Your task to perform on an android device: delete browsing data in the chrome app Image 0: 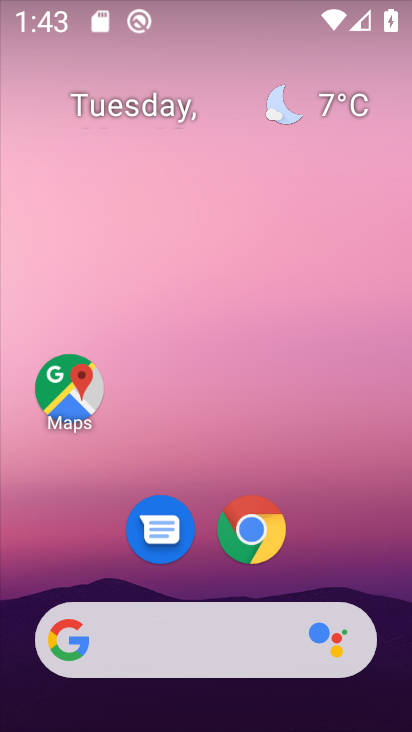
Step 0: click (247, 530)
Your task to perform on an android device: delete browsing data in the chrome app Image 1: 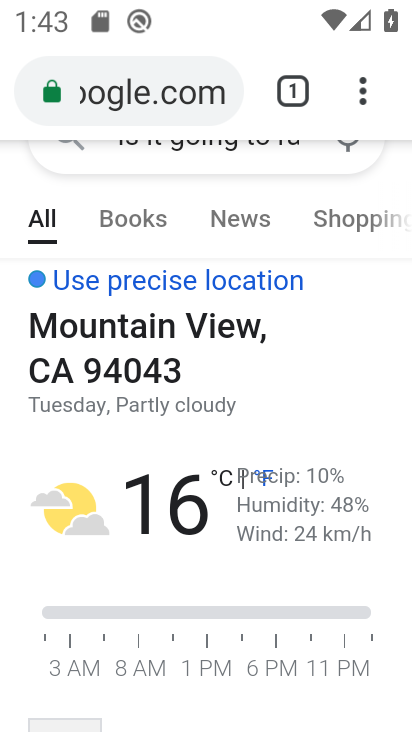
Step 1: click (363, 91)
Your task to perform on an android device: delete browsing data in the chrome app Image 2: 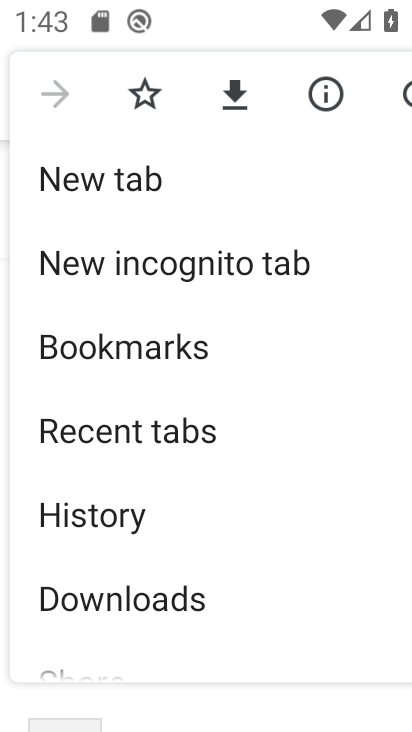
Step 2: drag from (223, 461) to (254, 329)
Your task to perform on an android device: delete browsing data in the chrome app Image 3: 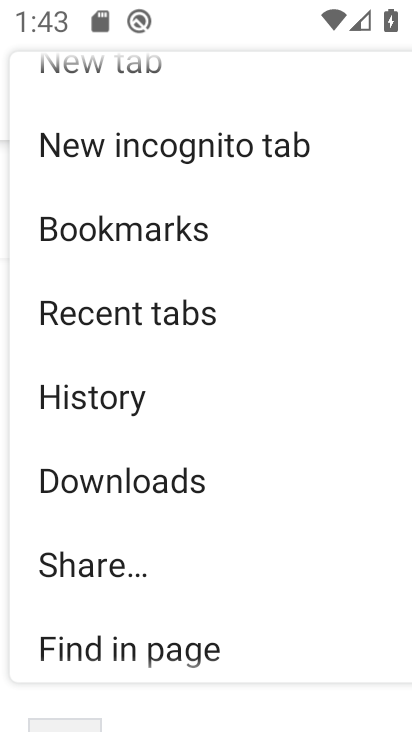
Step 3: drag from (152, 511) to (179, 396)
Your task to perform on an android device: delete browsing data in the chrome app Image 4: 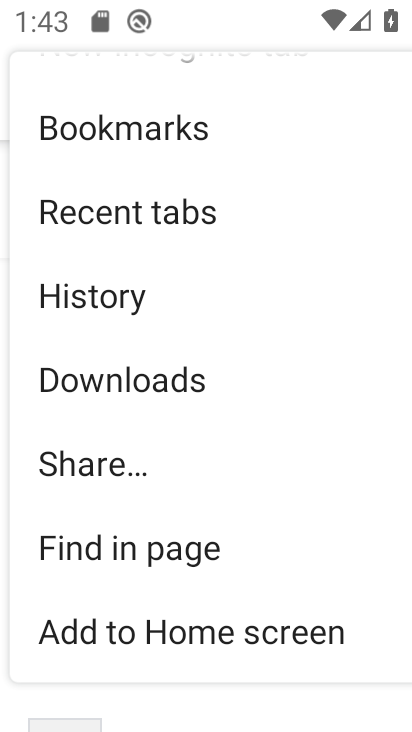
Step 4: drag from (149, 508) to (219, 394)
Your task to perform on an android device: delete browsing data in the chrome app Image 5: 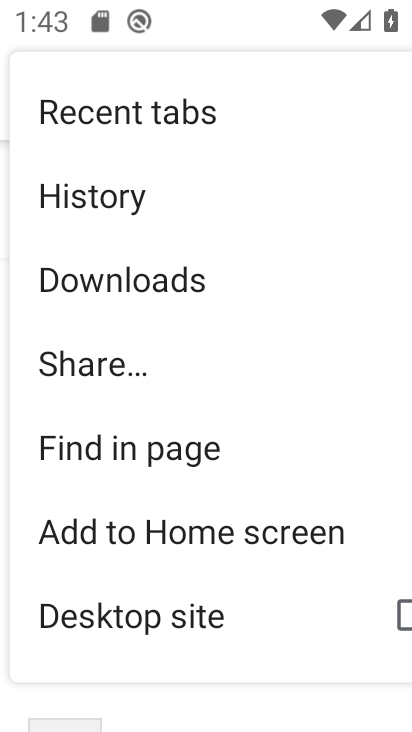
Step 5: drag from (165, 502) to (249, 359)
Your task to perform on an android device: delete browsing data in the chrome app Image 6: 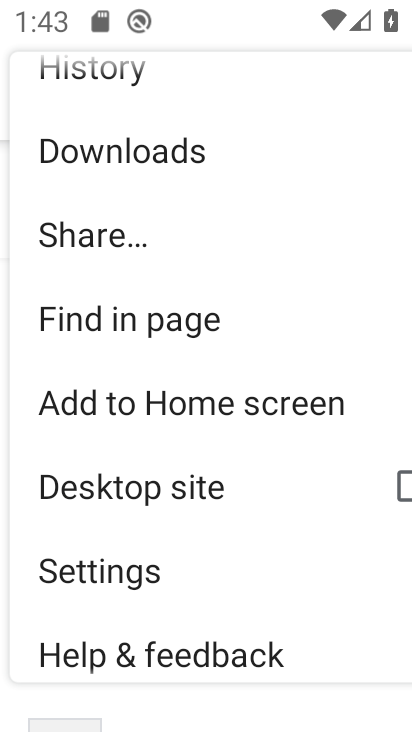
Step 6: drag from (141, 507) to (249, 334)
Your task to perform on an android device: delete browsing data in the chrome app Image 7: 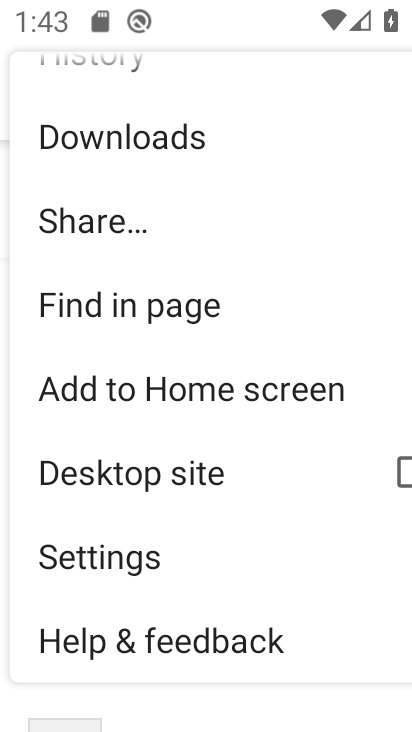
Step 7: click (113, 557)
Your task to perform on an android device: delete browsing data in the chrome app Image 8: 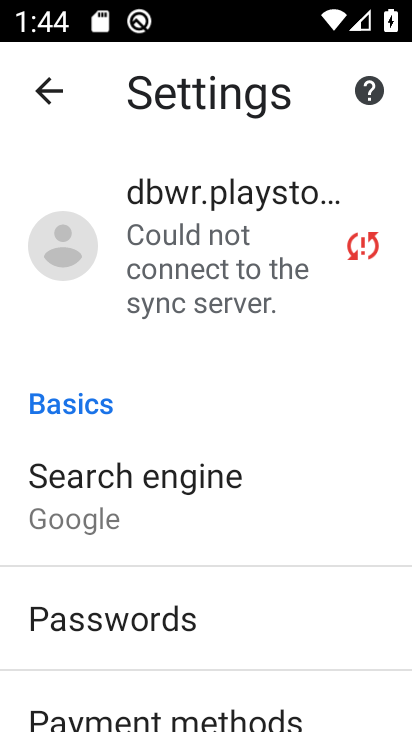
Step 8: drag from (116, 573) to (186, 384)
Your task to perform on an android device: delete browsing data in the chrome app Image 9: 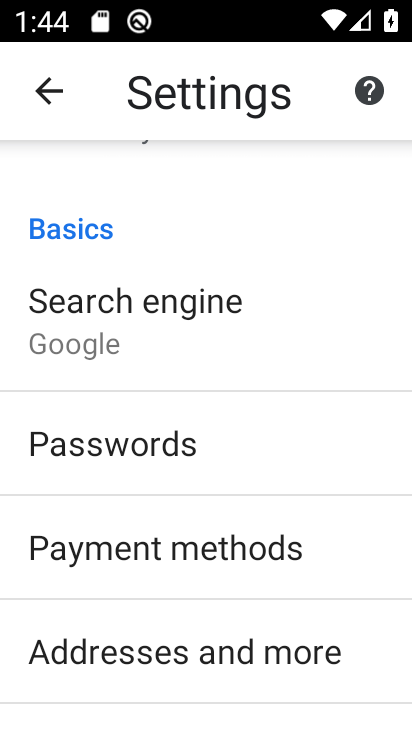
Step 9: drag from (122, 570) to (195, 409)
Your task to perform on an android device: delete browsing data in the chrome app Image 10: 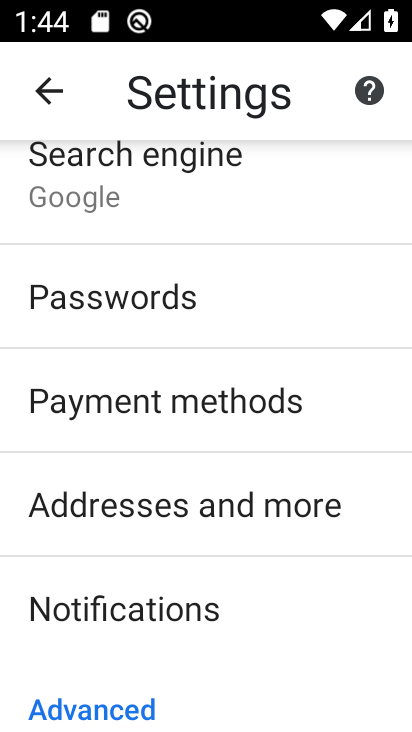
Step 10: drag from (136, 548) to (242, 413)
Your task to perform on an android device: delete browsing data in the chrome app Image 11: 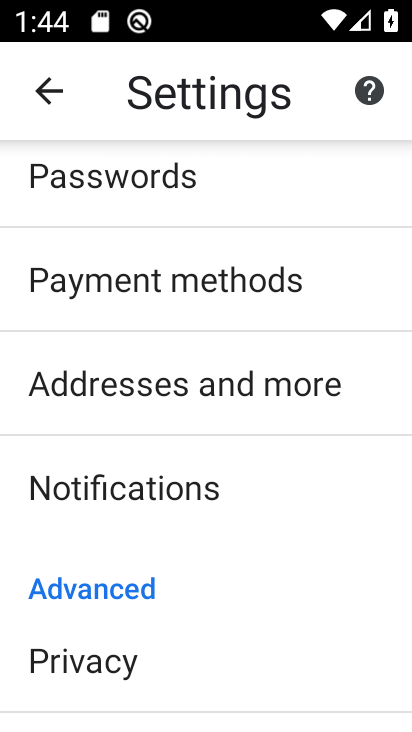
Step 11: drag from (160, 544) to (229, 403)
Your task to perform on an android device: delete browsing data in the chrome app Image 12: 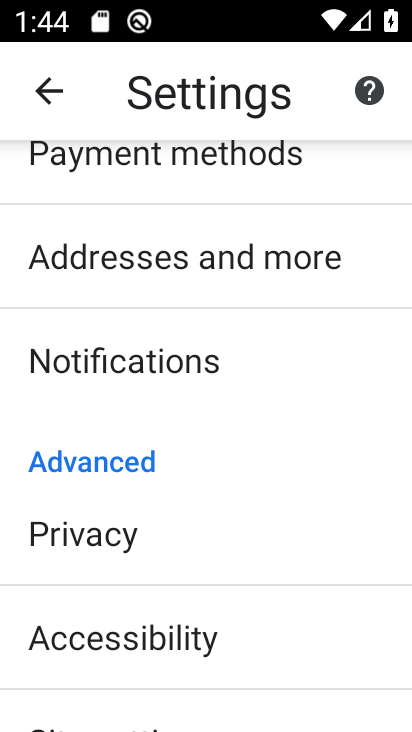
Step 12: click (118, 541)
Your task to perform on an android device: delete browsing data in the chrome app Image 13: 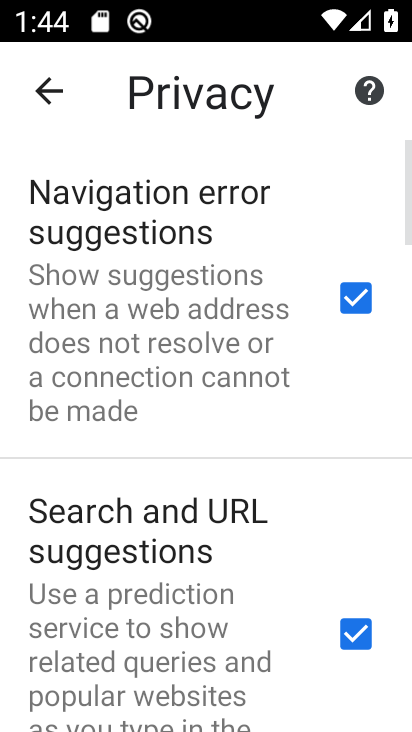
Step 13: drag from (137, 528) to (208, 317)
Your task to perform on an android device: delete browsing data in the chrome app Image 14: 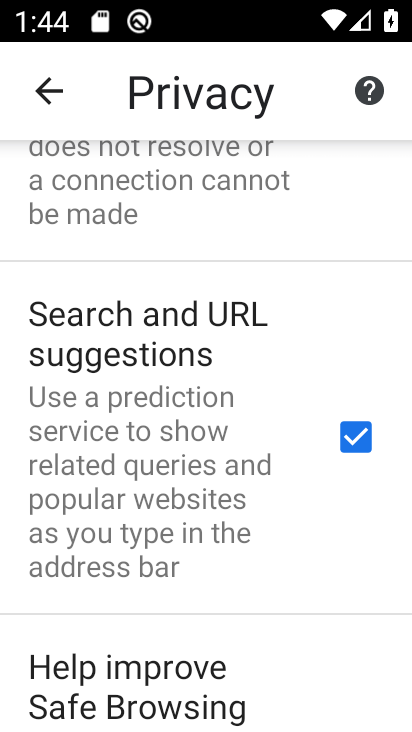
Step 14: drag from (146, 517) to (210, 320)
Your task to perform on an android device: delete browsing data in the chrome app Image 15: 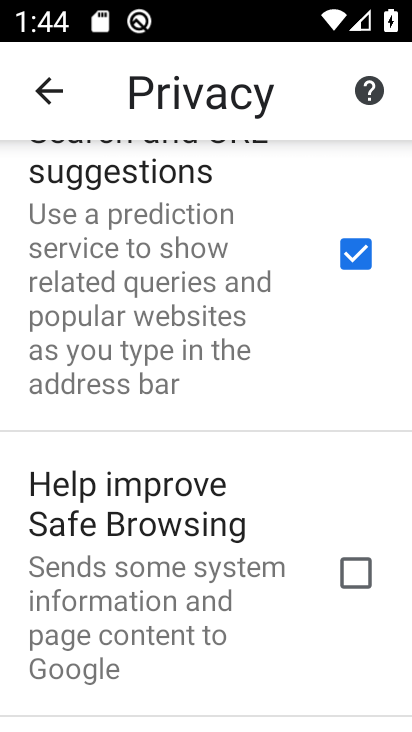
Step 15: drag from (129, 530) to (190, 388)
Your task to perform on an android device: delete browsing data in the chrome app Image 16: 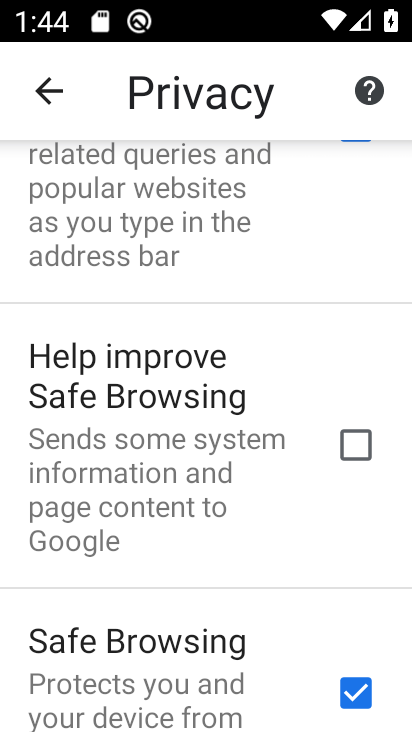
Step 16: drag from (126, 593) to (186, 386)
Your task to perform on an android device: delete browsing data in the chrome app Image 17: 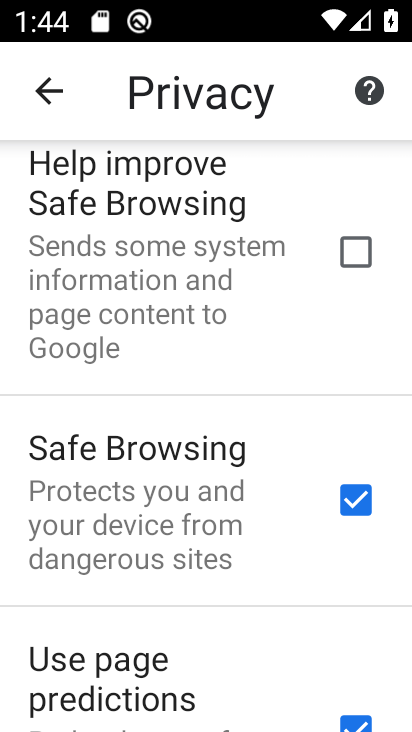
Step 17: drag from (118, 628) to (176, 398)
Your task to perform on an android device: delete browsing data in the chrome app Image 18: 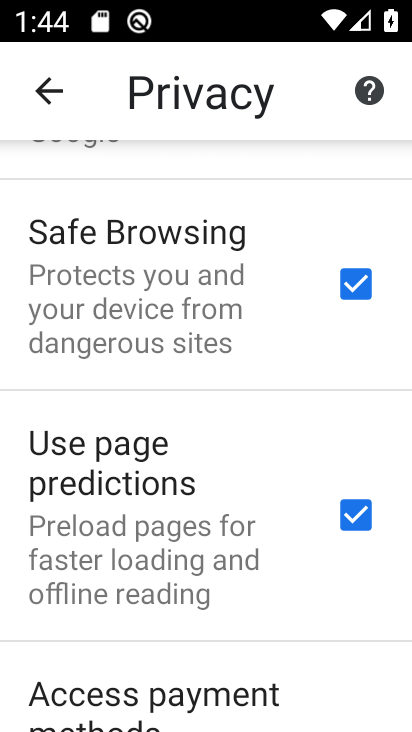
Step 18: drag from (112, 586) to (193, 411)
Your task to perform on an android device: delete browsing data in the chrome app Image 19: 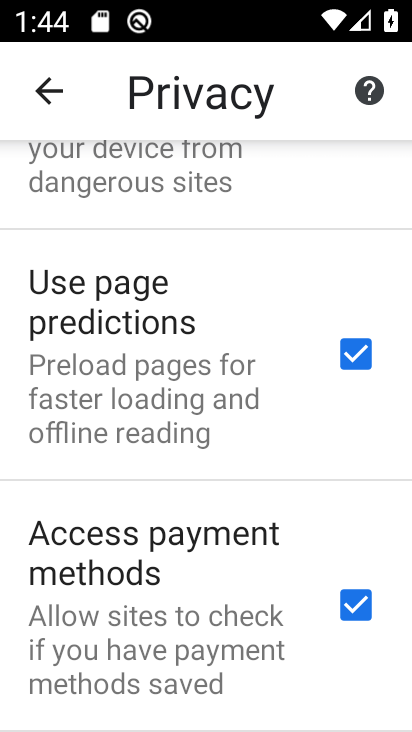
Step 19: drag from (131, 602) to (211, 412)
Your task to perform on an android device: delete browsing data in the chrome app Image 20: 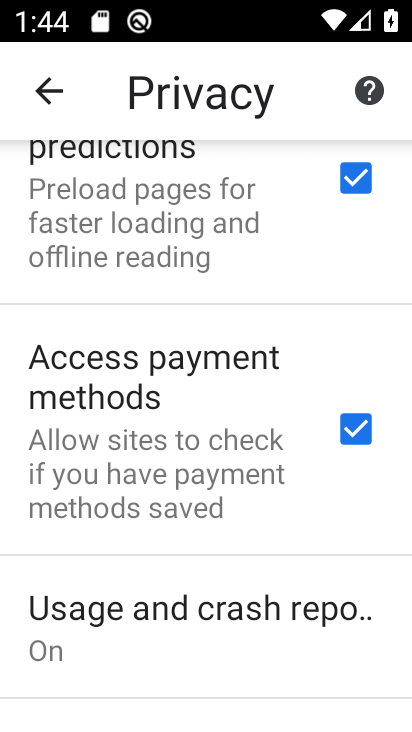
Step 20: drag from (149, 603) to (203, 443)
Your task to perform on an android device: delete browsing data in the chrome app Image 21: 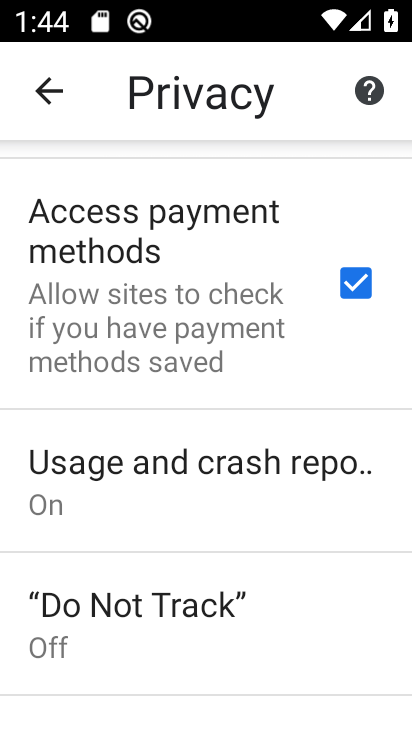
Step 21: drag from (131, 662) to (240, 404)
Your task to perform on an android device: delete browsing data in the chrome app Image 22: 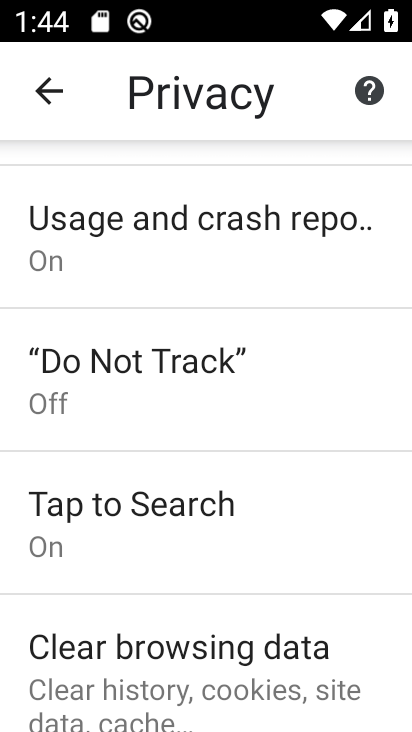
Step 22: drag from (171, 573) to (281, 381)
Your task to perform on an android device: delete browsing data in the chrome app Image 23: 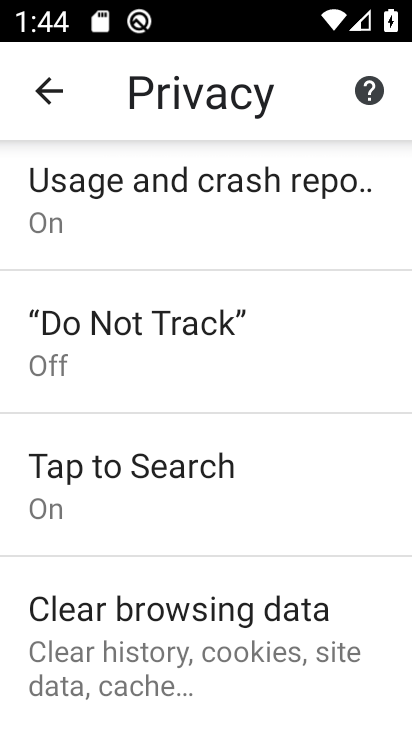
Step 23: click (151, 613)
Your task to perform on an android device: delete browsing data in the chrome app Image 24: 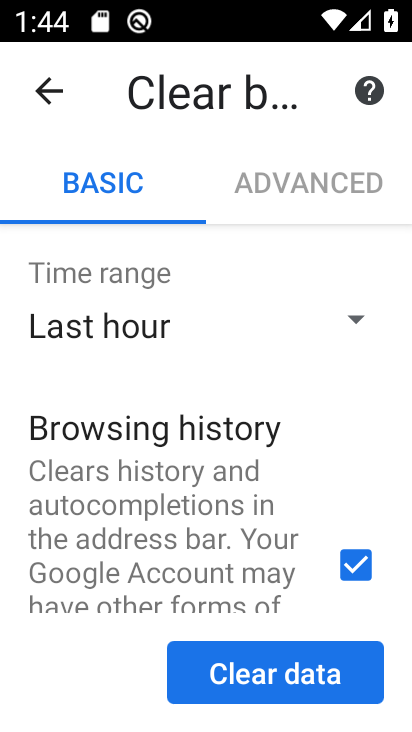
Step 24: click (192, 560)
Your task to perform on an android device: delete browsing data in the chrome app Image 25: 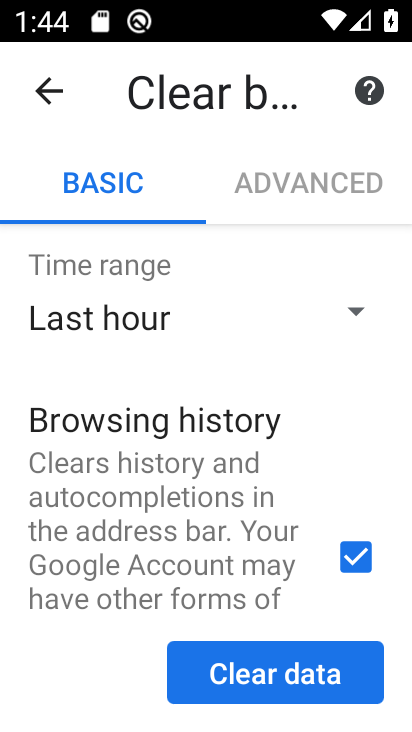
Step 25: click (240, 658)
Your task to perform on an android device: delete browsing data in the chrome app Image 26: 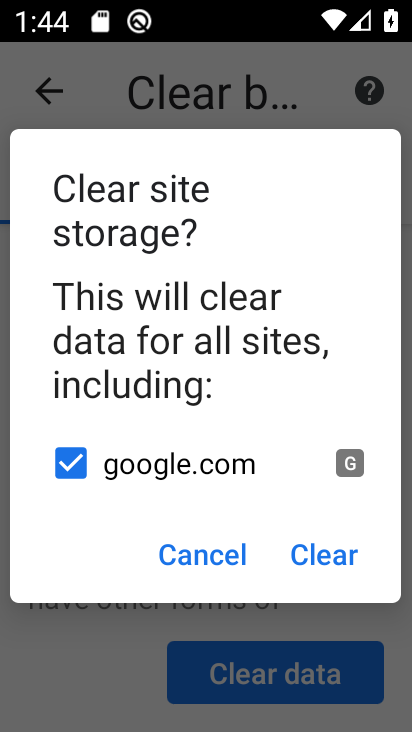
Step 26: click (307, 563)
Your task to perform on an android device: delete browsing data in the chrome app Image 27: 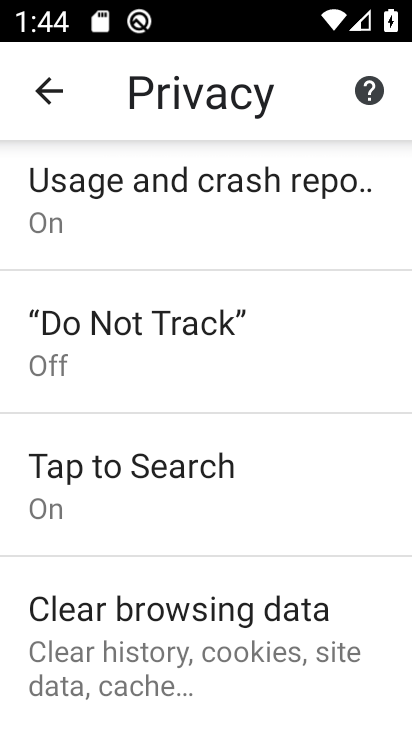
Step 27: task complete